Your task to perform on an android device: open device folders in google photos Image 0: 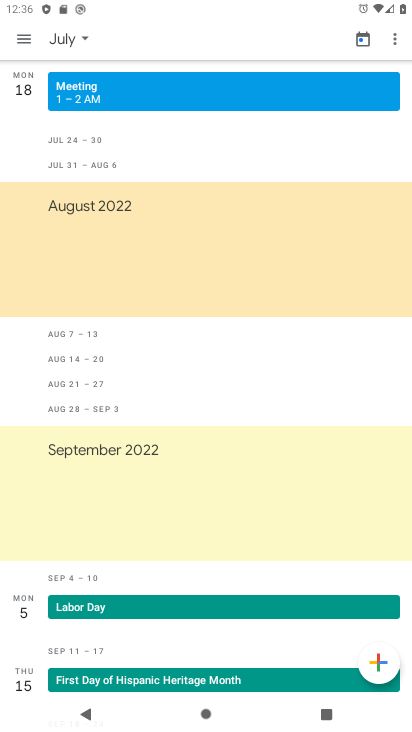
Step 0: press home button
Your task to perform on an android device: open device folders in google photos Image 1: 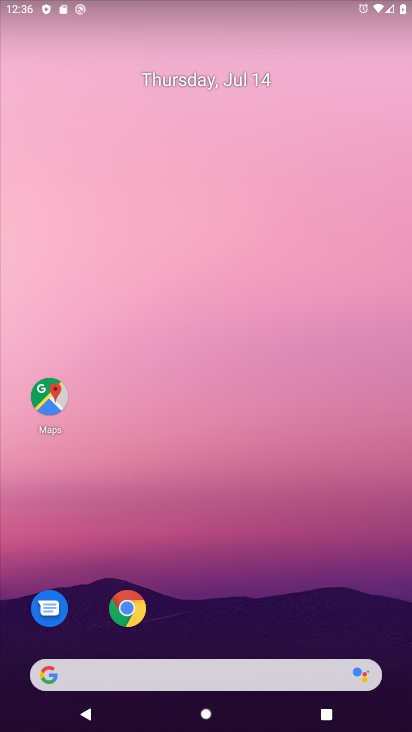
Step 1: drag from (210, 676) to (246, 238)
Your task to perform on an android device: open device folders in google photos Image 2: 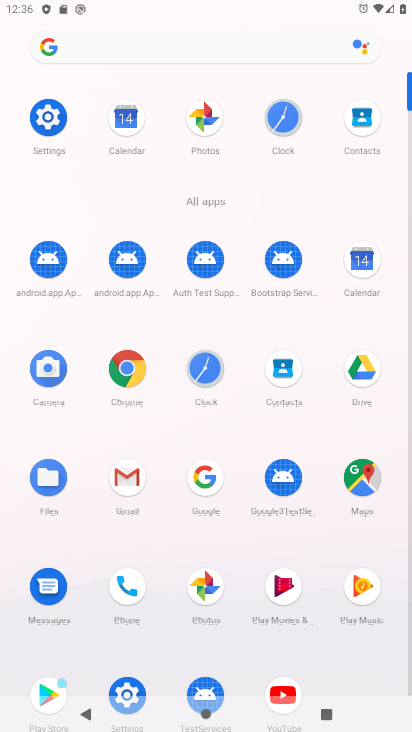
Step 2: click (206, 587)
Your task to perform on an android device: open device folders in google photos Image 3: 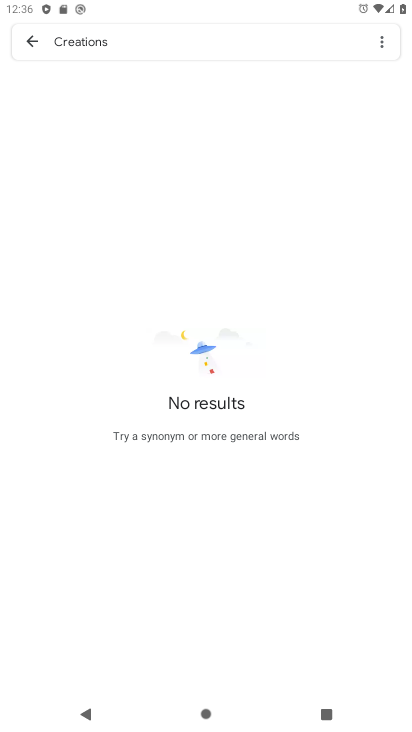
Step 3: press back button
Your task to perform on an android device: open device folders in google photos Image 4: 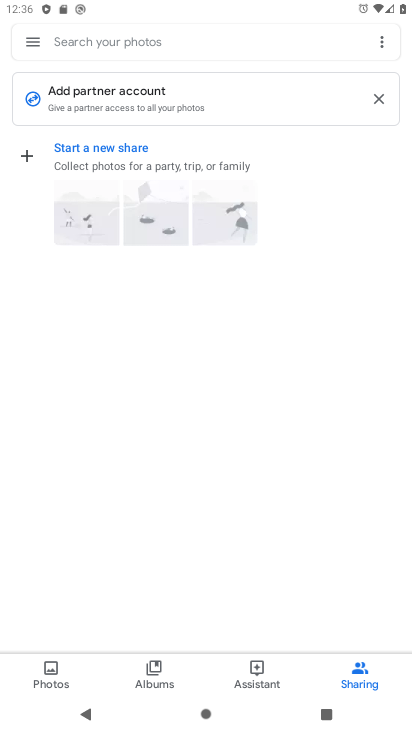
Step 4: click (31, 44)
Your task to perform on an android device: open device folders in google photos Image 5: 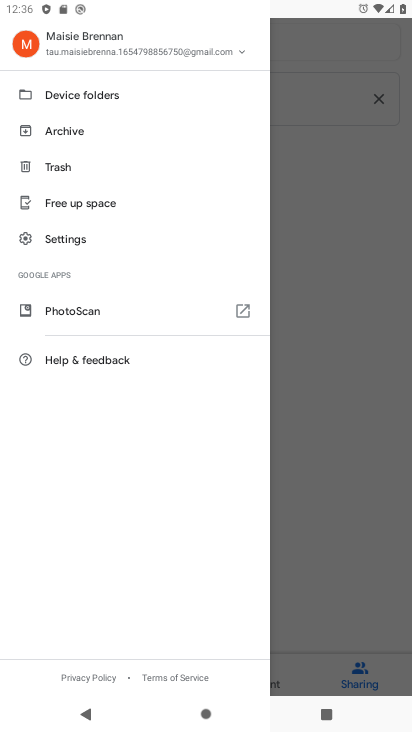
Step 5: click (55, 94)
Your task to perform on an android device: open device folders in google photos Image 6: 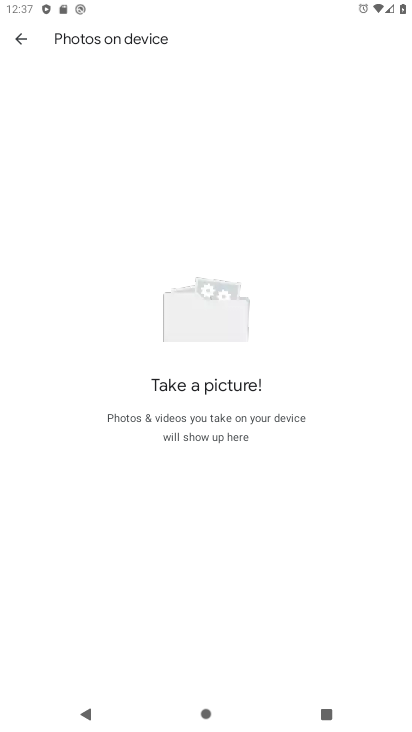
Step 6: task complete